Your task to perform on an android device: see creations saved in the google photos Image 0: 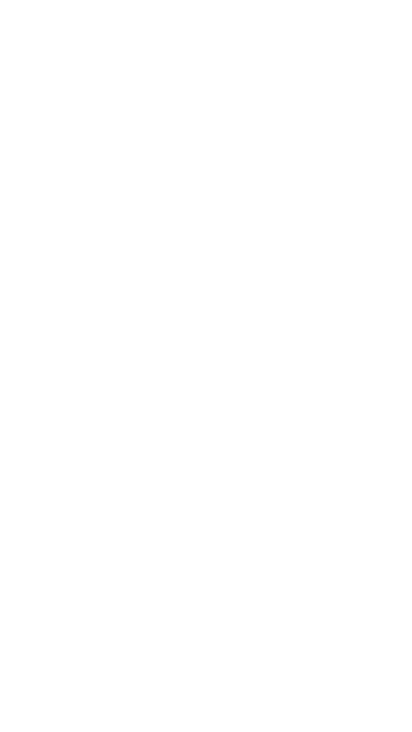
Step 0: drag from (335, 586) to (333, 534)
Your task to perform on an android device: see creations saved in the google photos Image 1: 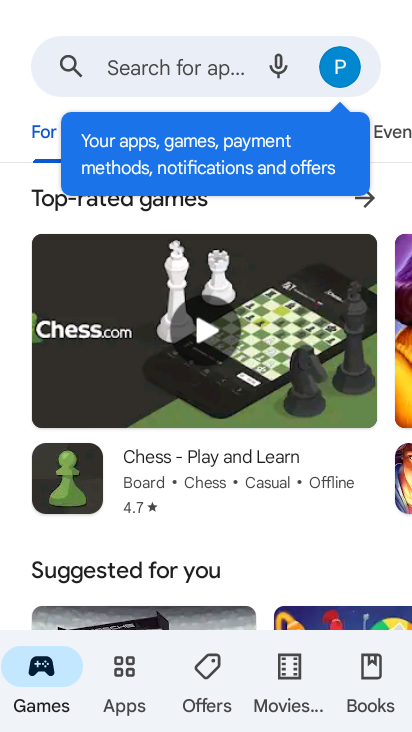
Step 1: press home button
Your task to perform on an android device: see creations saved in the google photos Image 2: 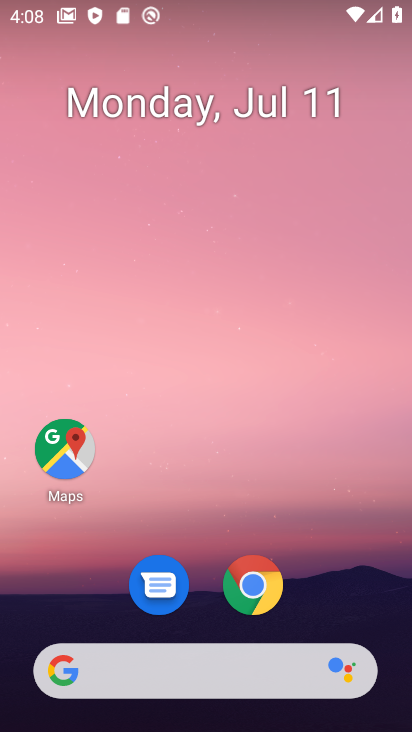
Step 2: drag from (316, 572) to (319, 36)
Your task to perform on an android device: see creations saved in the google photos Image 3: 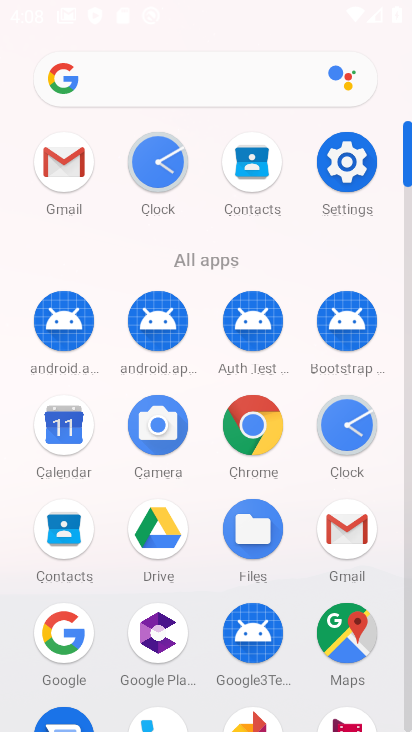
Step 3: drag from (300, 589) to (299, 314)
Your task to perform on an android device: see creations saved in the google photos Image 4: 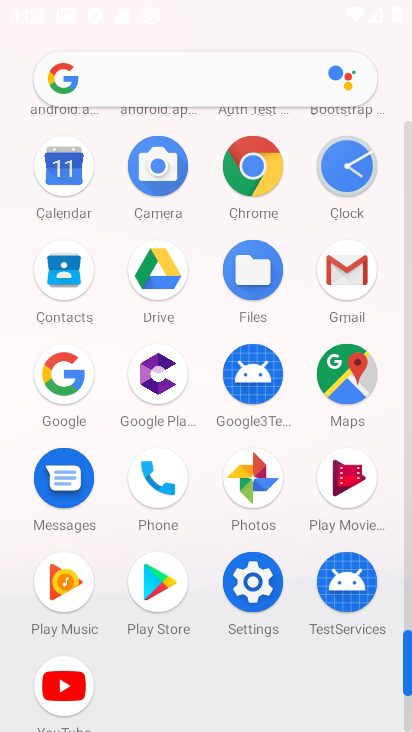
Step 4: click (242, 491)
Your task to perform on an android device: see creations saved in the google photos Image 5: 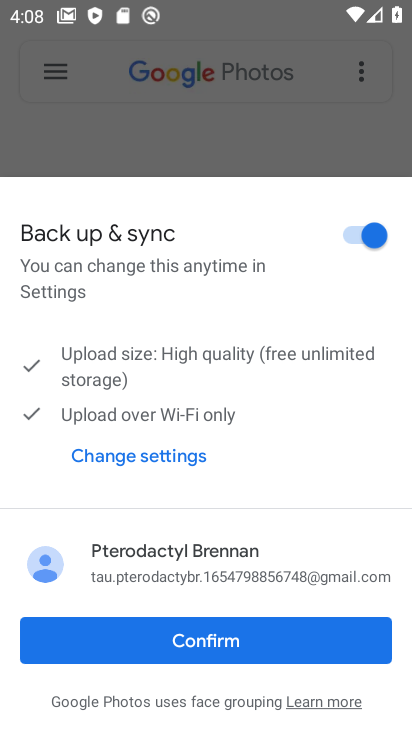
Step 5: click (250, 650)
Your task to perform on an android device: see creations saved in the google photos Image 6: 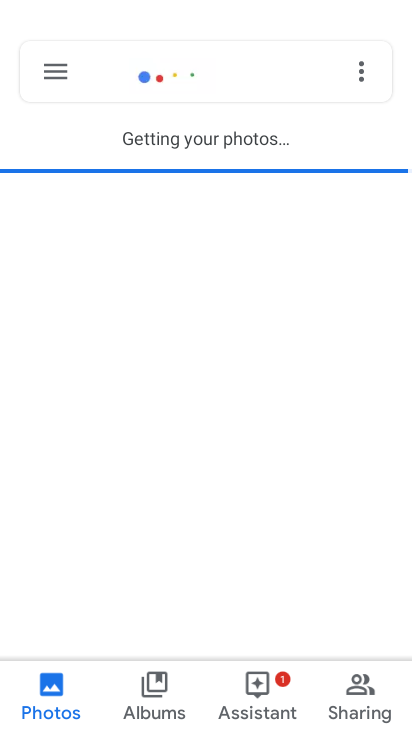
Step 6: click (165, 61)
Your task to perform on an android device: see creations saved in the google photos Image 7: 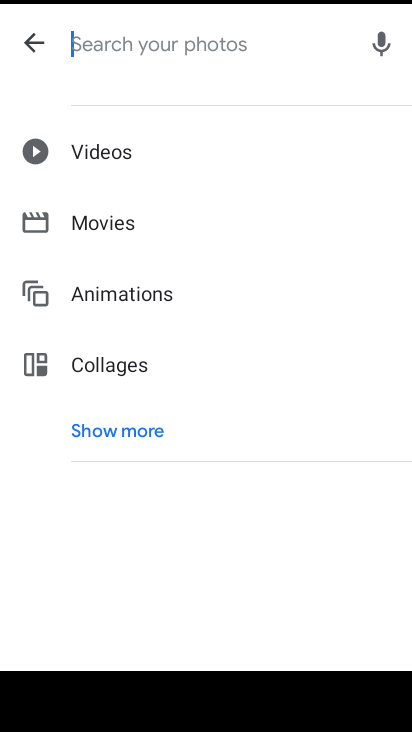
Step 7: click (147, 424)
Your task to perform on an android device: see creations saved in the google photos Image 8: 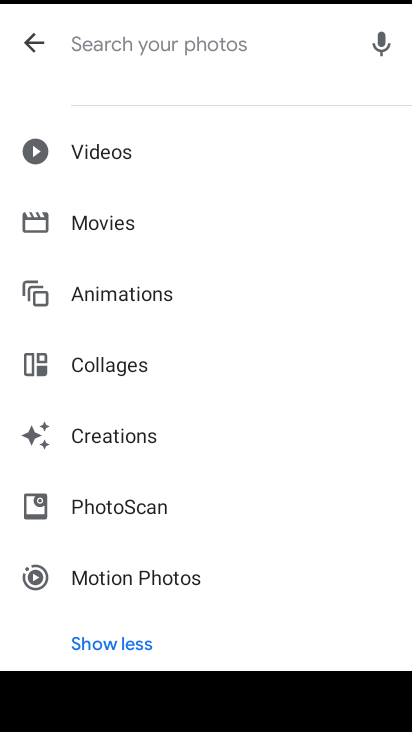
Step 8: click (135, 431)
Your task to perform on an android device: see creations saved in the google photos Image 9: 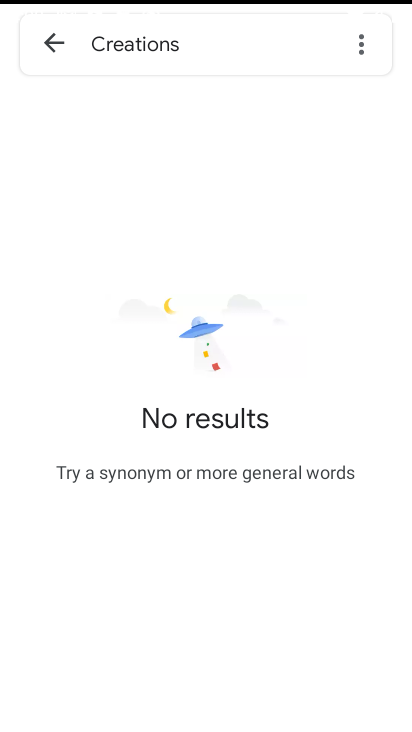
Step 9: task complete